Your task to perform on an android device: Add "usb-a to usb-b" to the cart on walmart, then select checkout. Image 0: 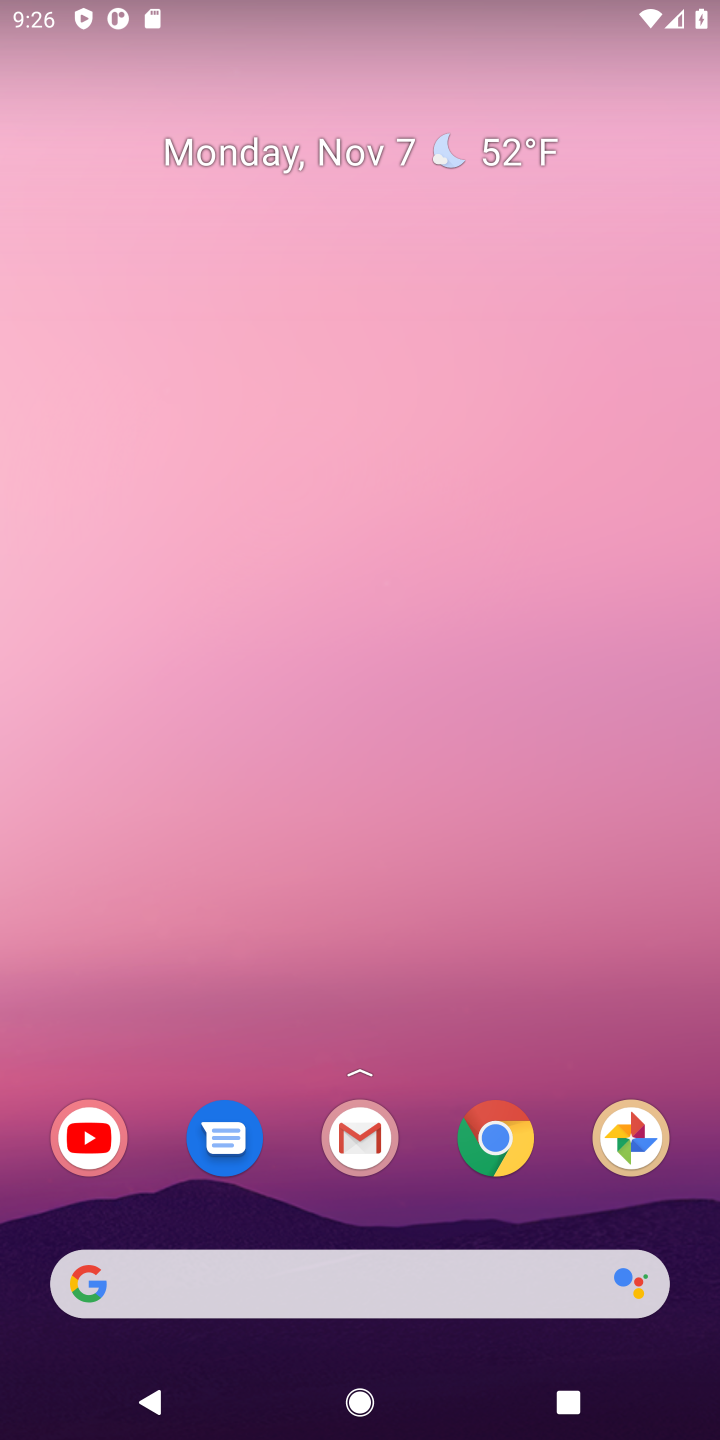
Step 0: drag from (381, 1087) to (454, 418)
Your task to perform on an android device: Add "usb-a to usb-b" to the cart on walmart, then select checkout. Image 1: 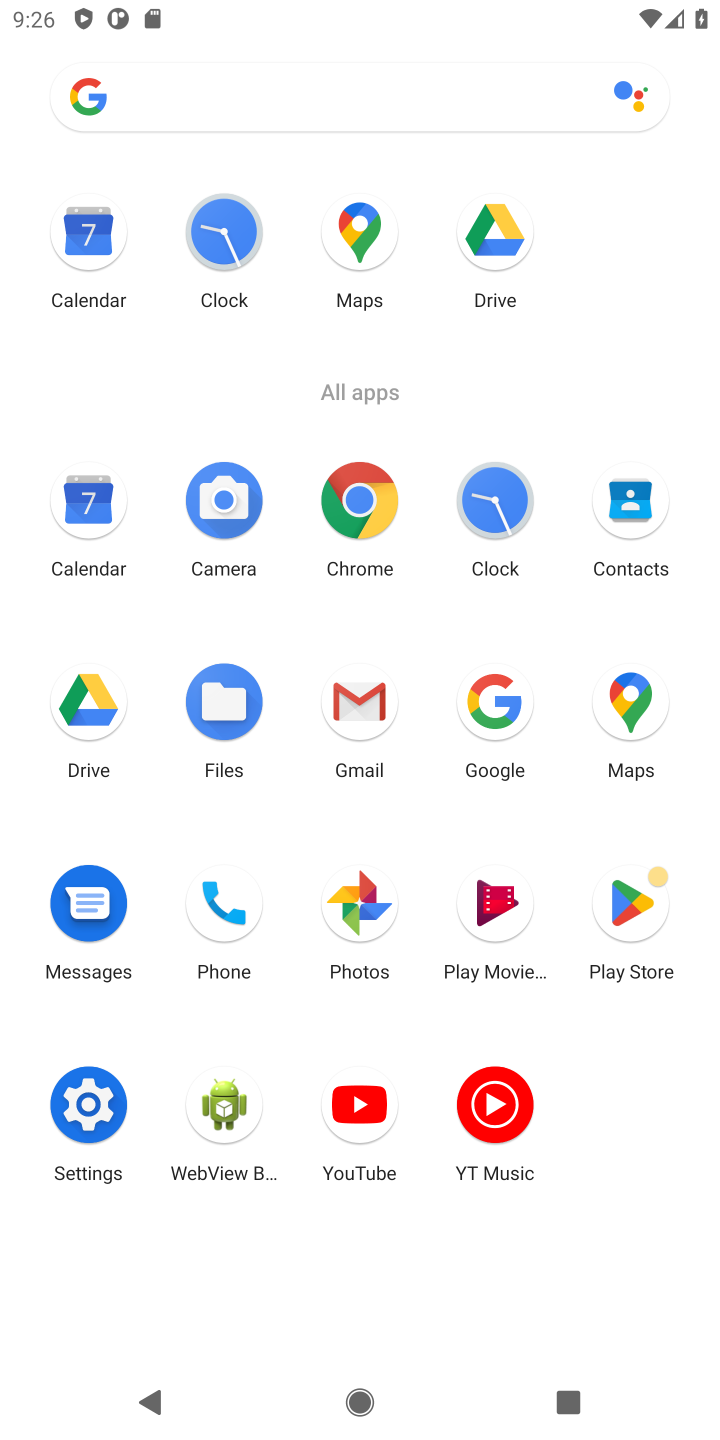
Step 1: click (526, 684)
Your task to perform on an android device: Add "usb-a to usb-b" to the cart on walmart, then select checkout. Image 2: 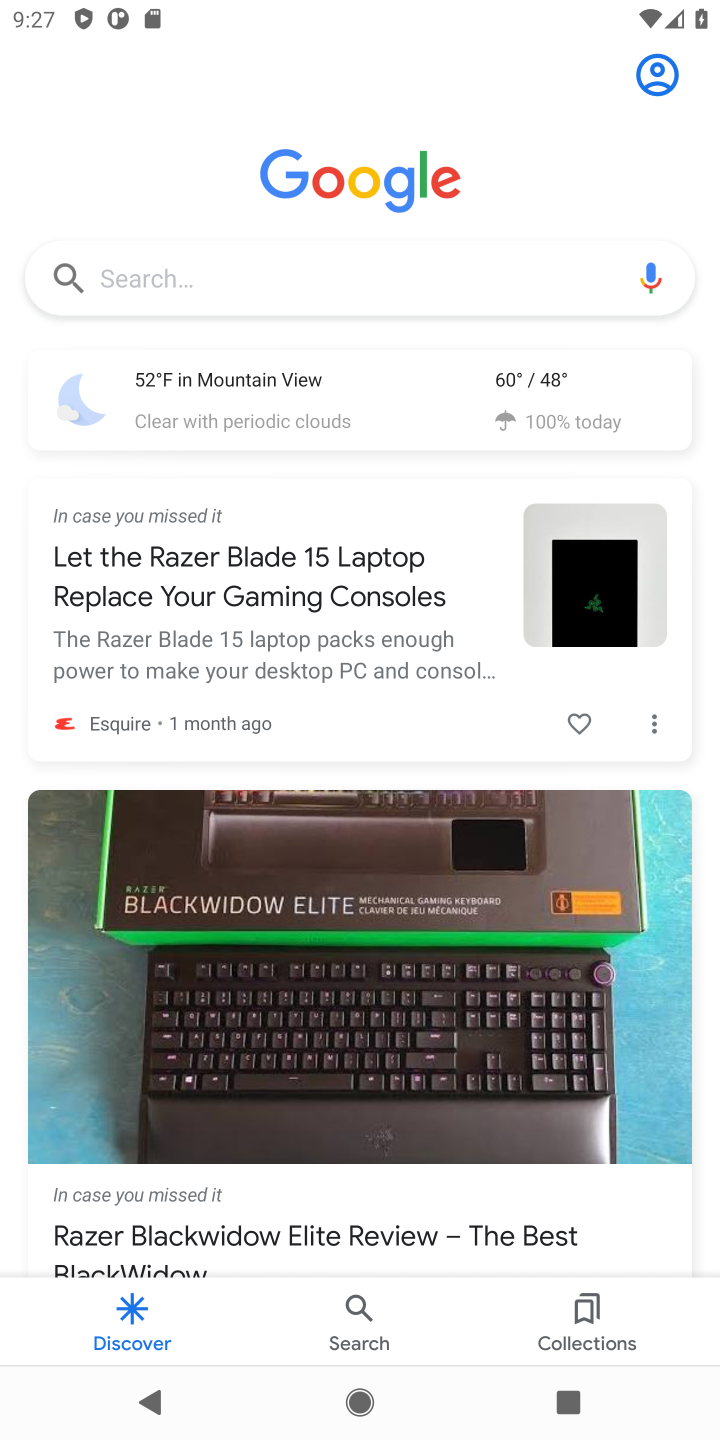
Step 2: click (252, 289)
Your task to perform on an android device: Add "usb-a to usb-b" to the cart on walmart, then select checkout. Image 3: 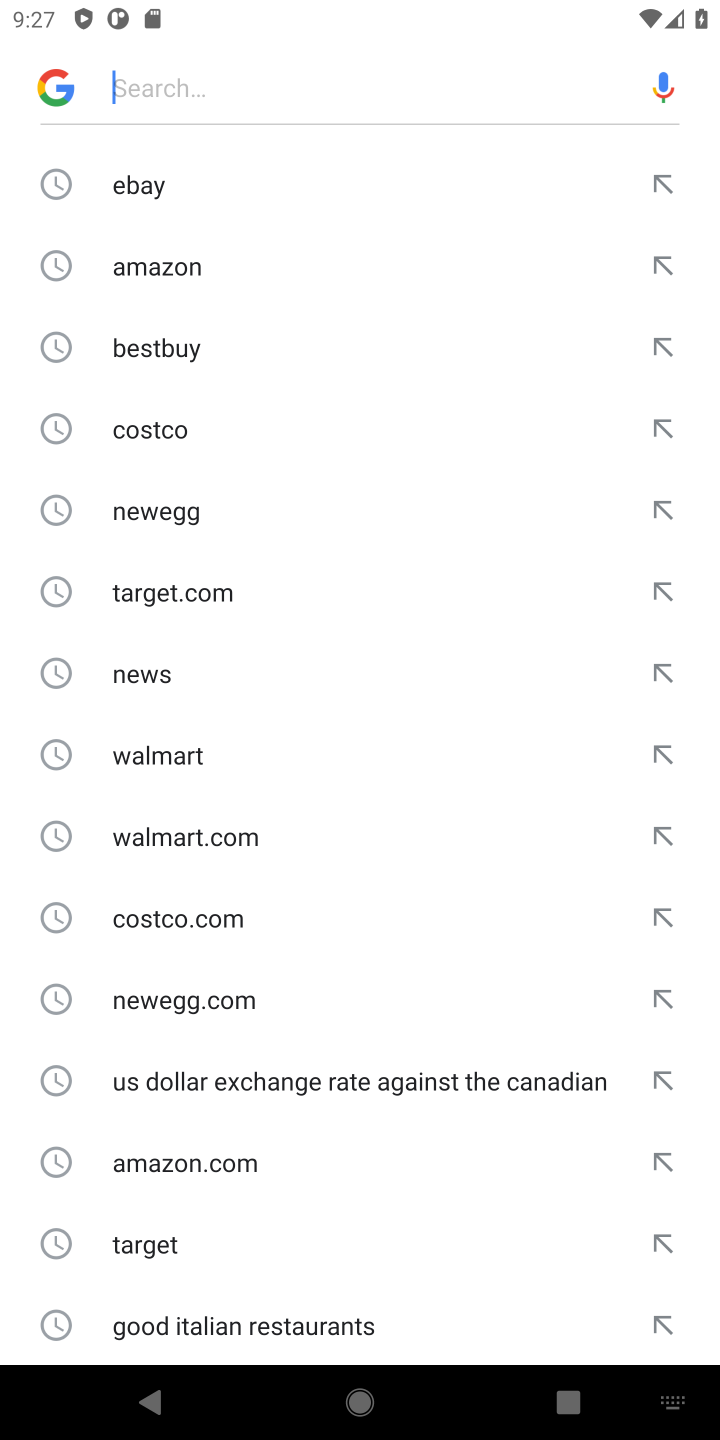
Step 3: click (232, 748)
Your task to perform on an android device: Add "usb-a to usb-b" to the cart on walmart, then select checkout. Image 4: 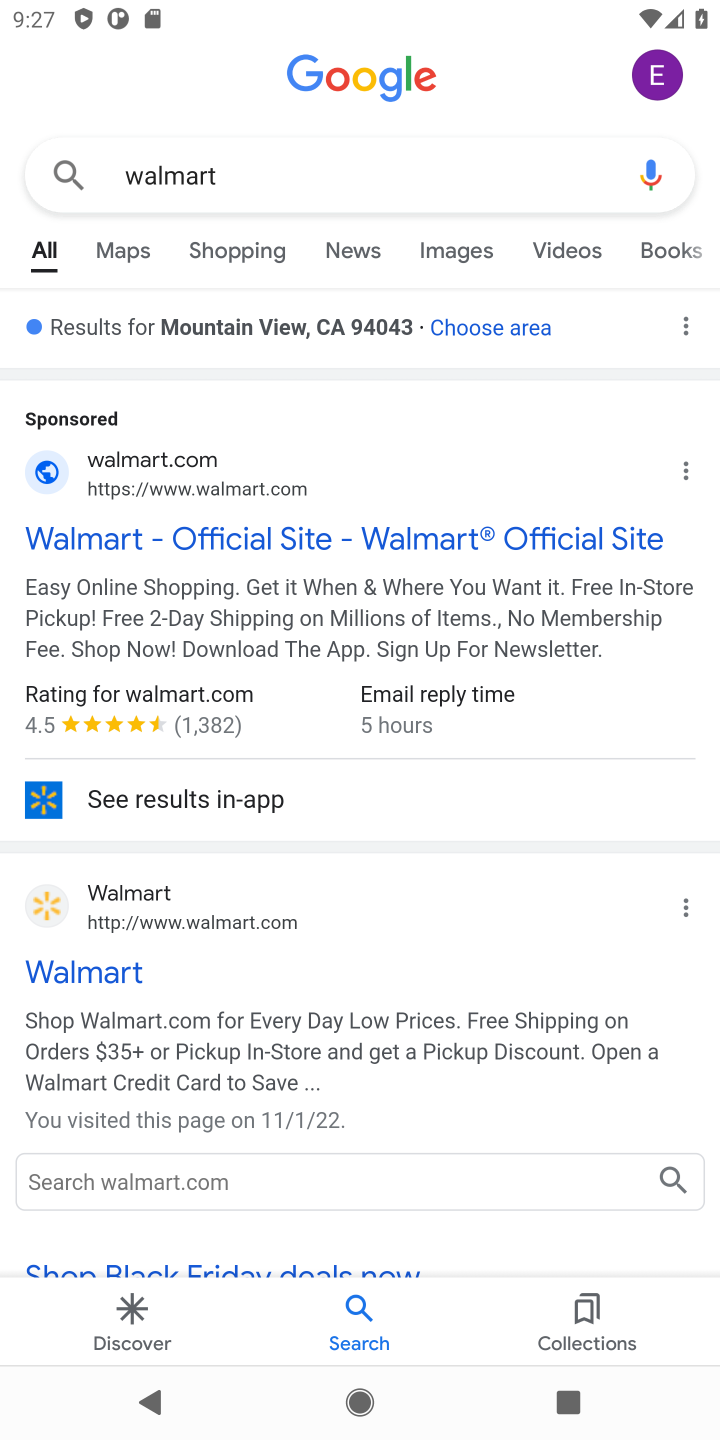
Step 4: click (193, 543)
Your task to perform on an android device: Add "usb-a to usb-b" to the cart on walmart, then select checkout. Image 5: 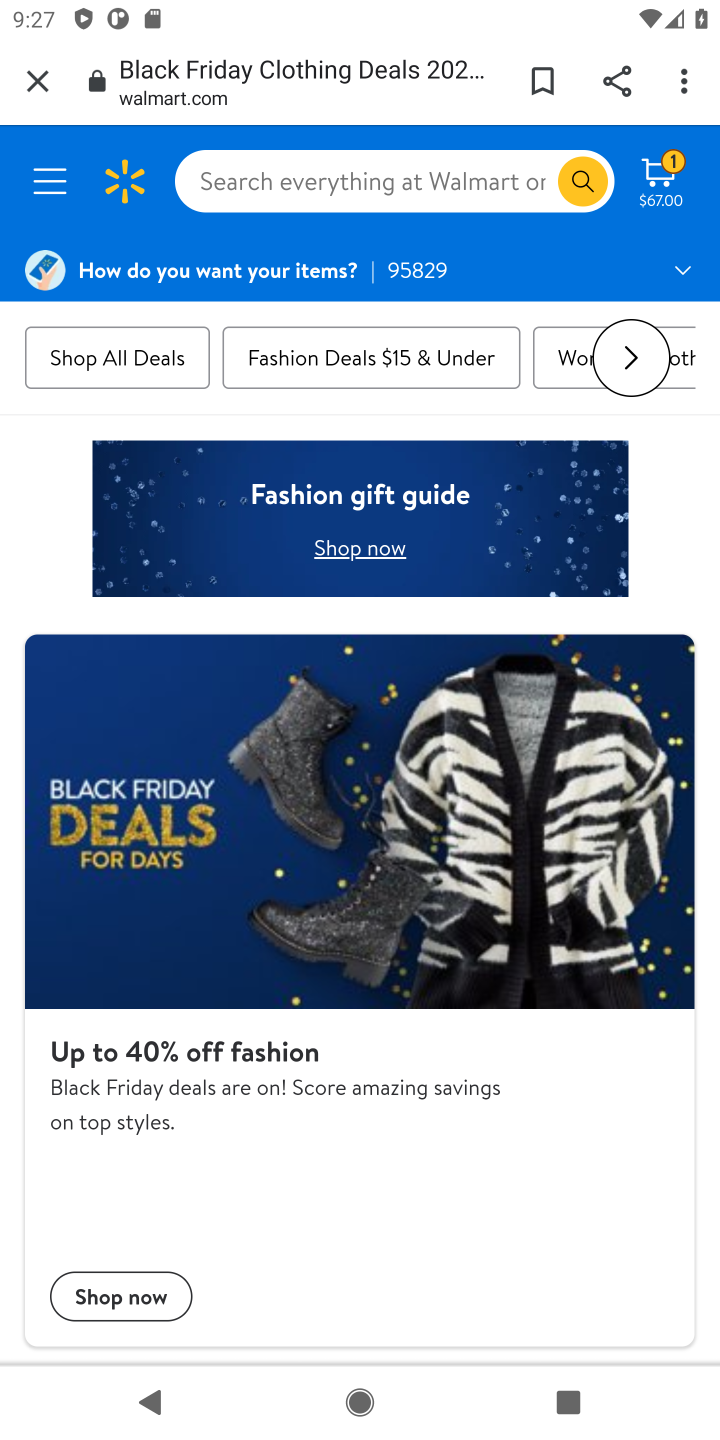
Step 5: click (441, 185)
Your task to perform on an android device: Add "usb-a to usb-b" to the cart on walmart, then select checkout. Image 6: 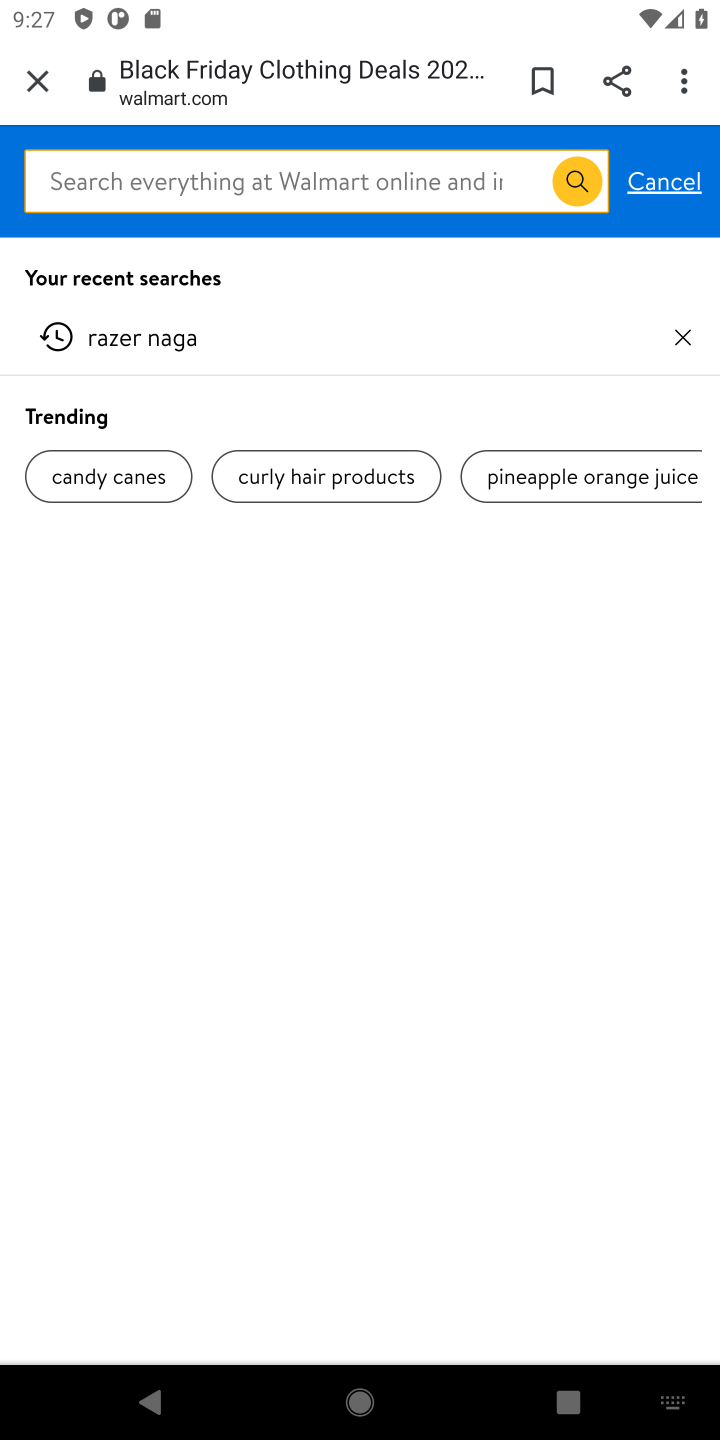
Step 6: type "usb-a to usb-b"
Your task to perform on an android device: Add "usb-a to usb-b" to the cart on walmart, then select checkout. Image 7: 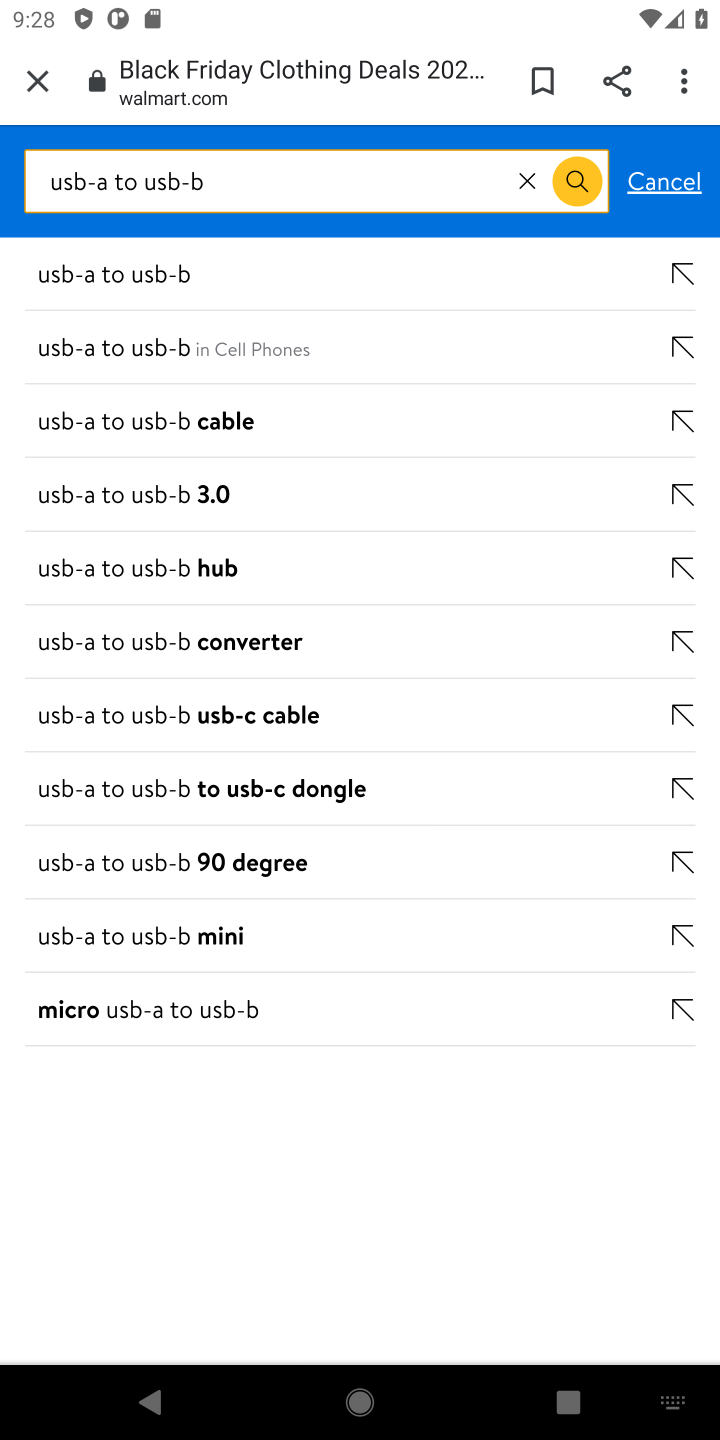
Step 7: click (271, 286)
Your task to perform on an android device: Add "usb-a to usb-b" to the cart on walmart, then select checkout. Image 8: 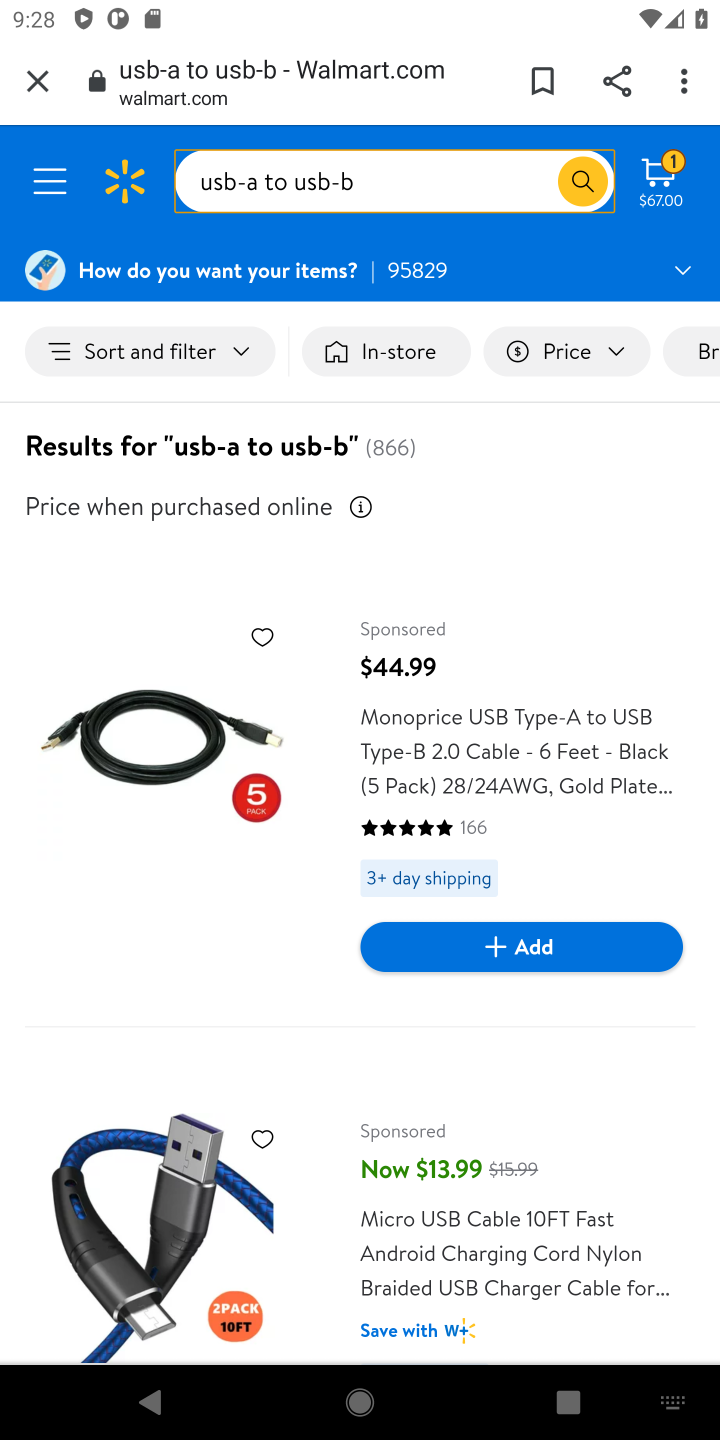
Step 8: click (436, 960)
Your task to perform on an android device: Add "usb-a to usb-b" to the cart on walmart, then select checkout. Image 9: 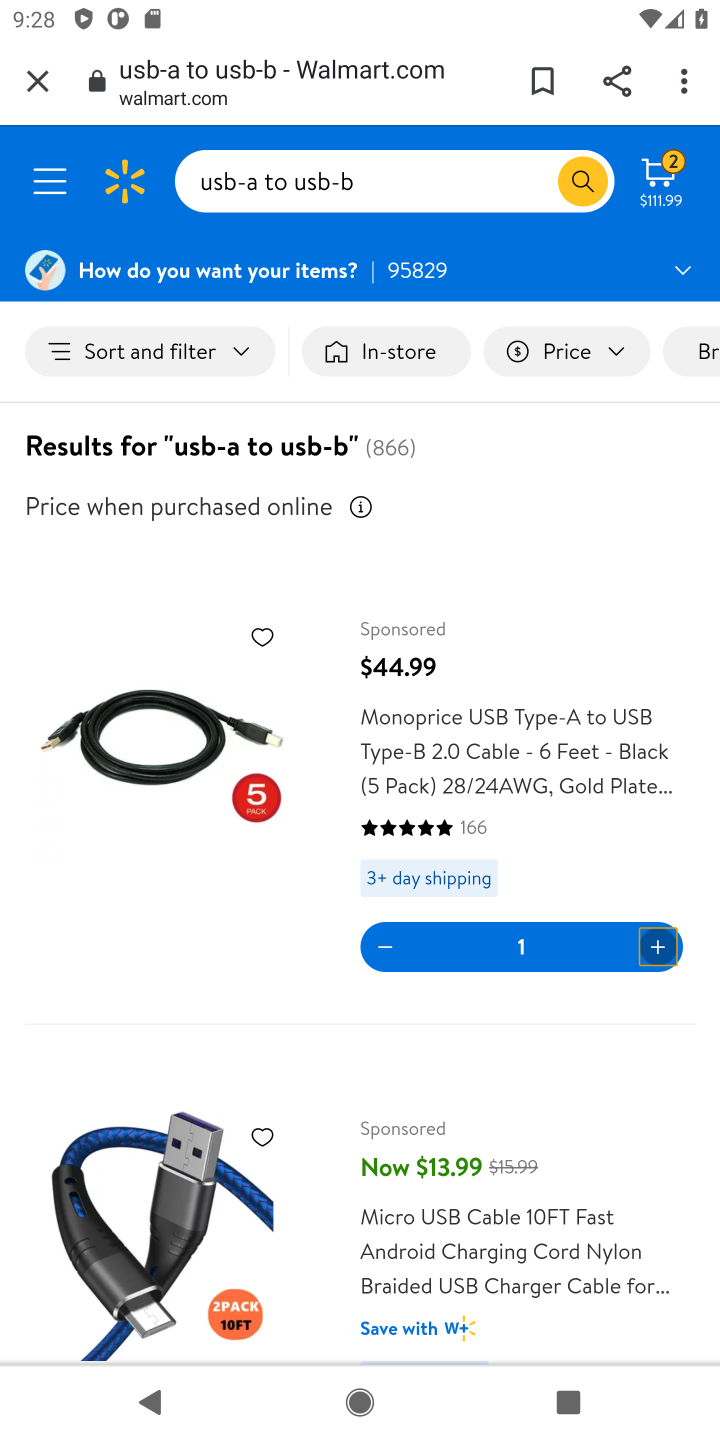
Step 9: click (675, 193)
Your task to perform on an android device: Add "usb-a to usb-b" to the cart on walmart, then select checkout. Image 10: 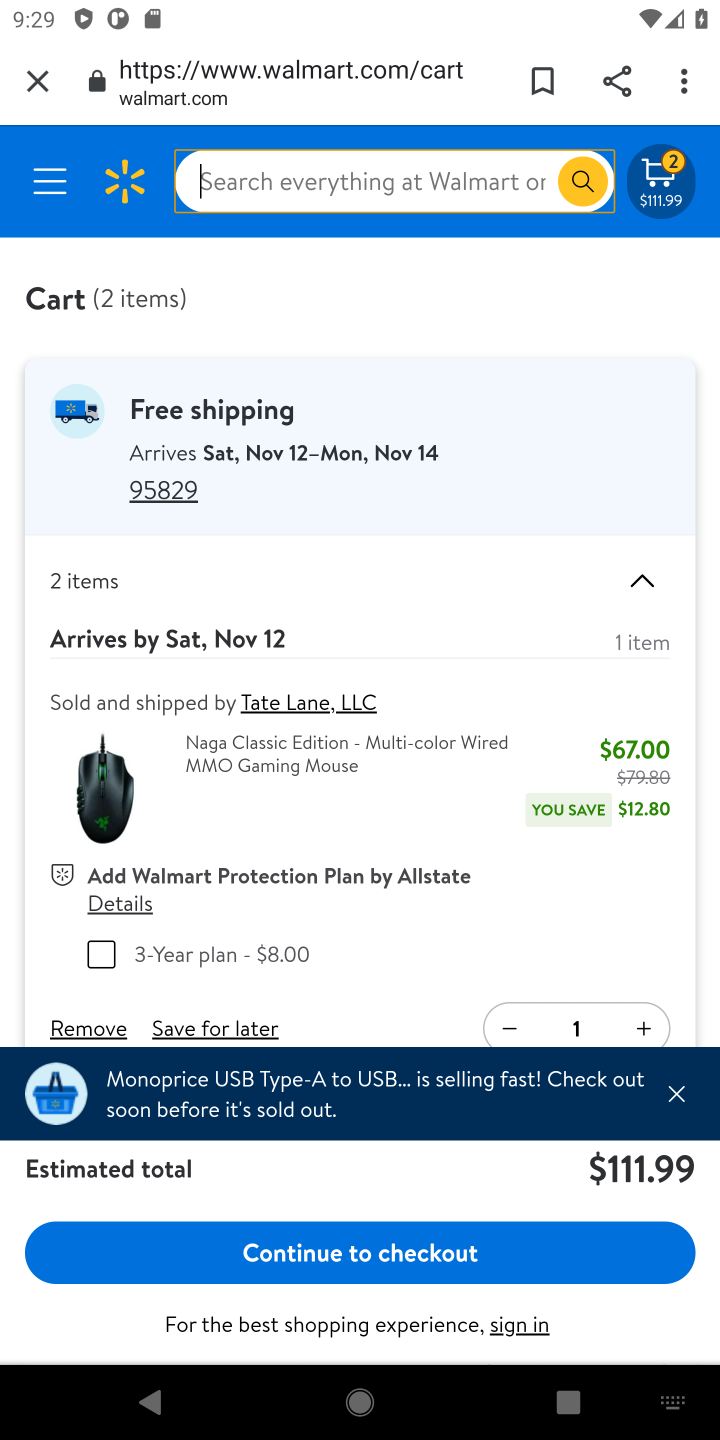
Step 10: click (536, 1271)
Your task to perform on an android device: Add "usb-a to usb-b" to the cart on walmart, then select checkout. Image 11: 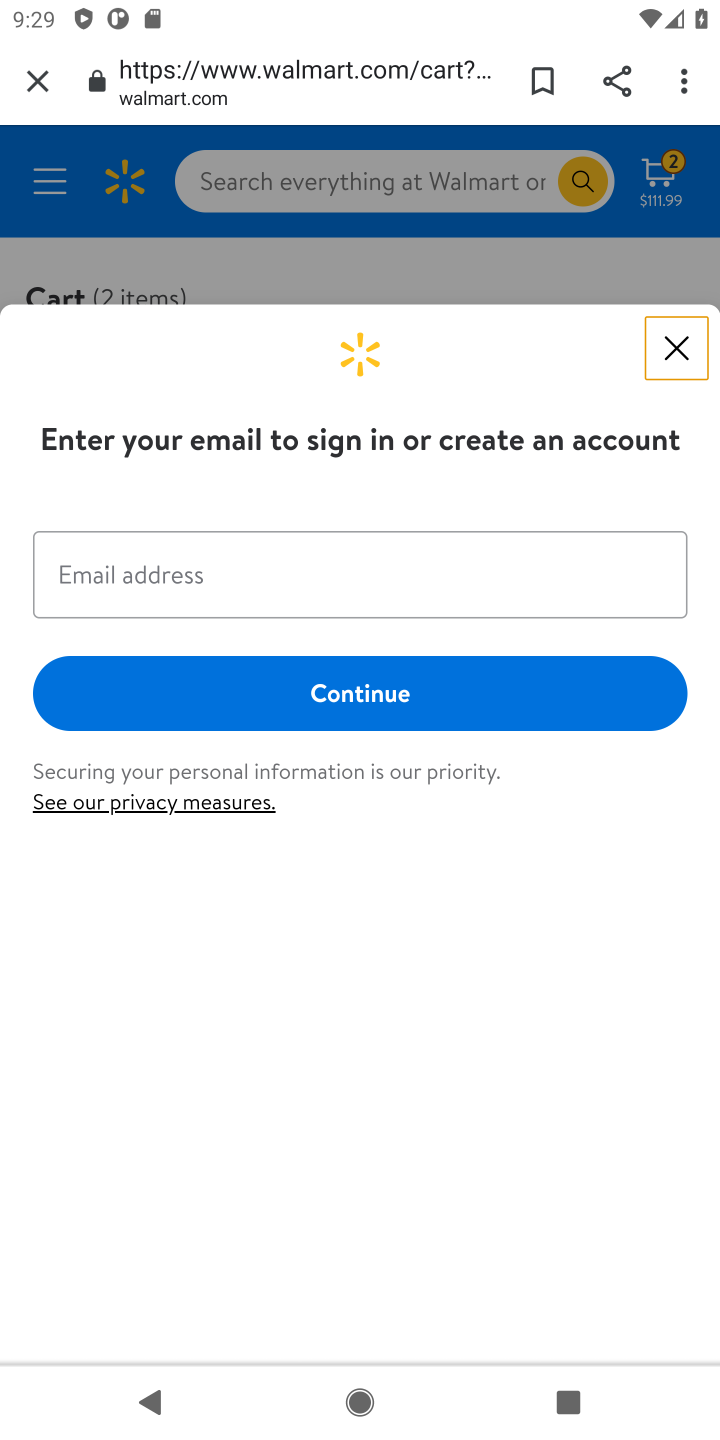
Step 11: task complete